Your task to perform on an android device: remove spam from my inbox in the gmail app Image 0: 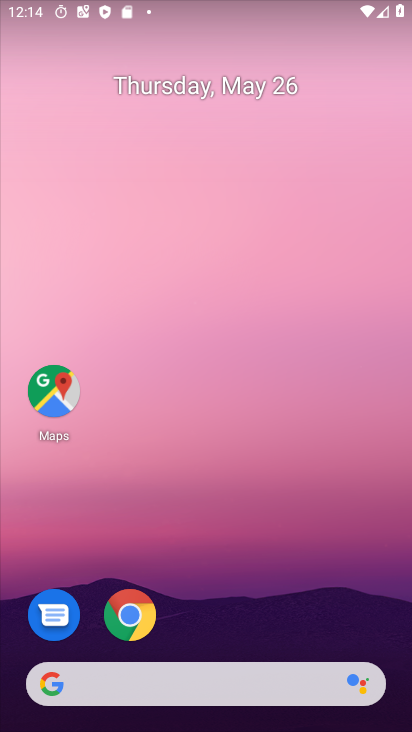
Step 0: drag from (222, 632) to (168, 224)
Your task to perform on an android device: remove spam from my inbox in the gmail app Image 1: 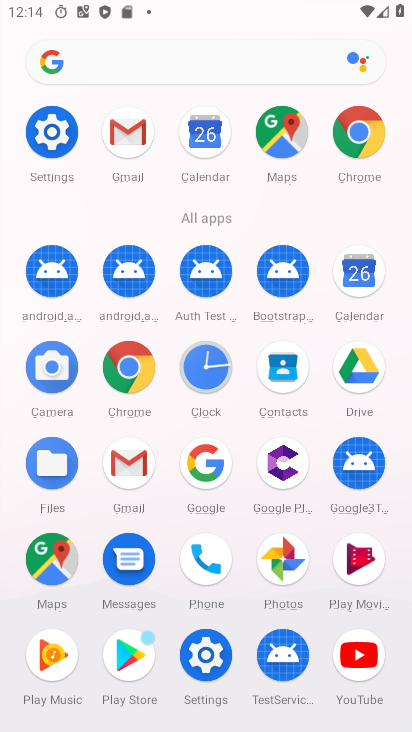
Step 1: click (126, 128)
Your task to perform on an android device: remove spam from my inbox in the gmail app Image 2: 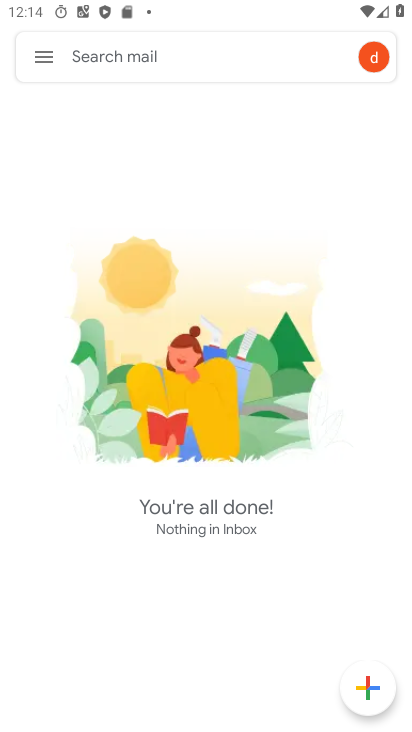
Step 2: click (39, 56)
Your task to perform on an android device: remove spam from my inbox in the gmail app Image 3: 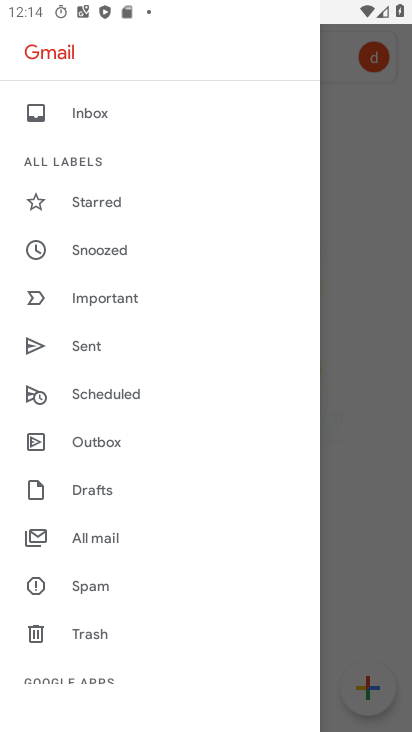
Step 3: click (159, 594)
Your task to perform on an android device: remove spam from my inbox in the gmail app Image 4: 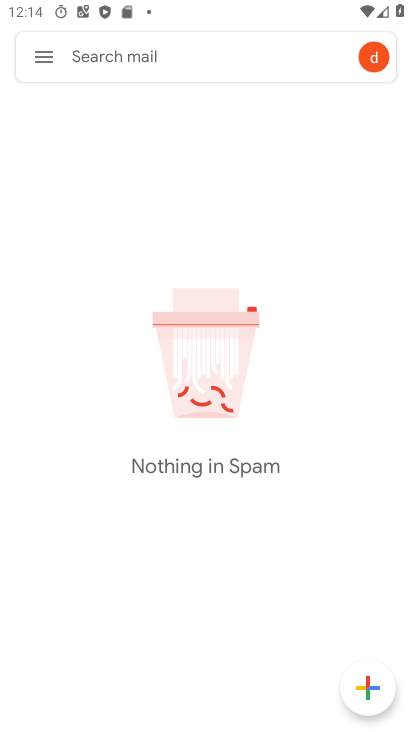
Step 4: task complete